Your task to perform on an android device: stop showing notifications on the lock screen Image 0: 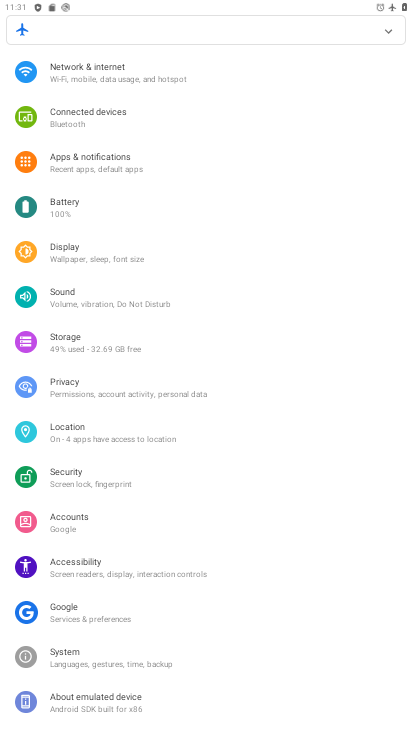
Step 0: click (118, 161)
Your task to perform on an android device: stop showing notifications on the lock screen Image 1: 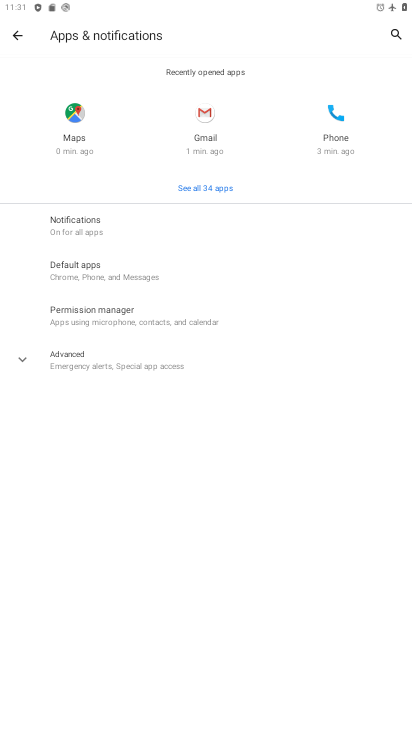
Step 1: click (121, 225)
Your task to perform on an android device: stop showing notifications on the lock screen Image 2: 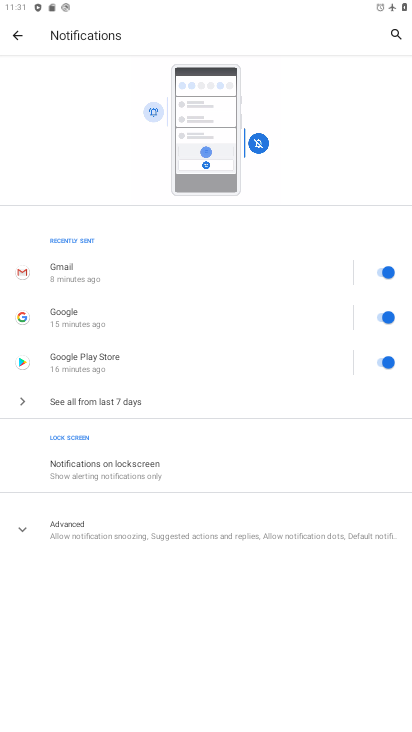
Step 2: click (188, 474)
Your task to perform on an android device: stop showing notifications on the lock screen Image 3: 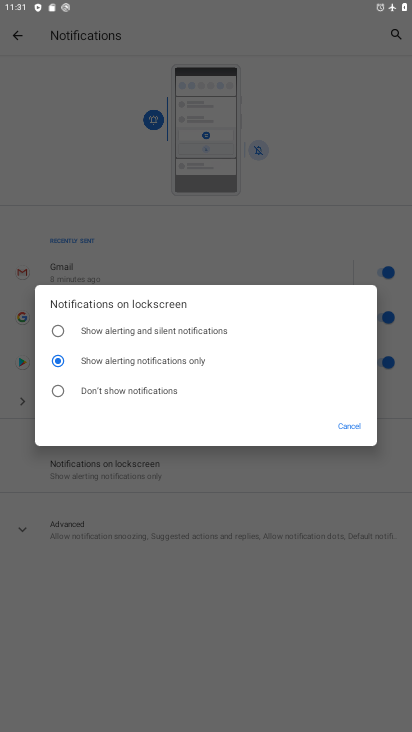
Step 3: click (128, 394)
Your task to perform on an android device: stop showing notifications on the lock screen Image 4: 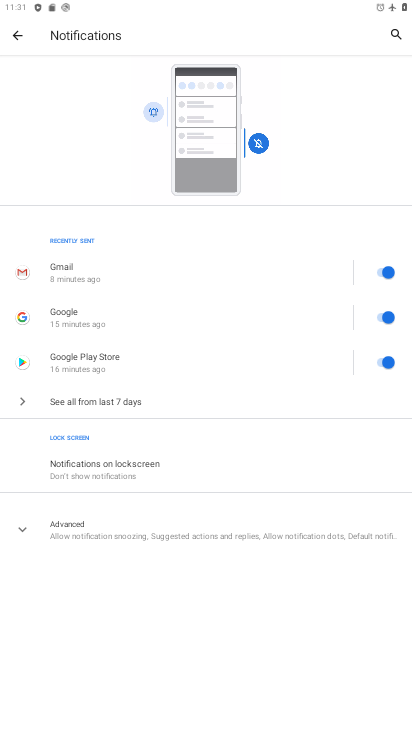
Step 4: task complete